Your task to perform on an android device: find which apps use the phone's location Image 0: 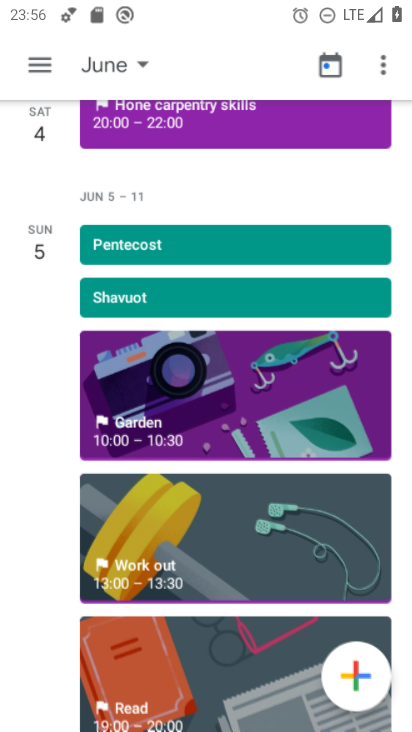
Step 0: press home button
Your task to perform on an android device: find which apps use the phone's location Image 1: 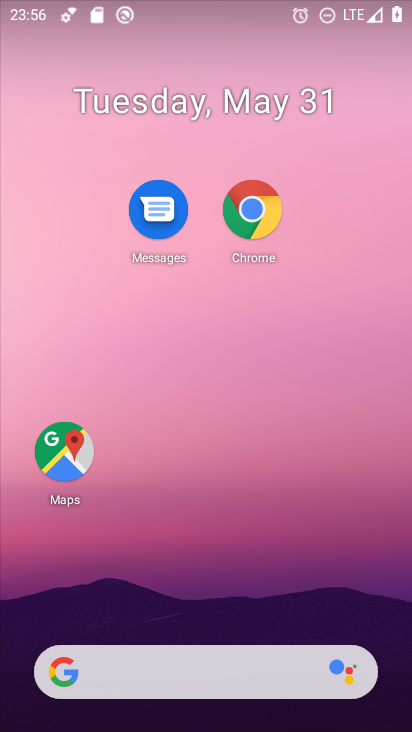
Step 1: drag from (227, 625) to (238, 92)
Your task to perform on an android device: find which apps use the phone's location Image 2: 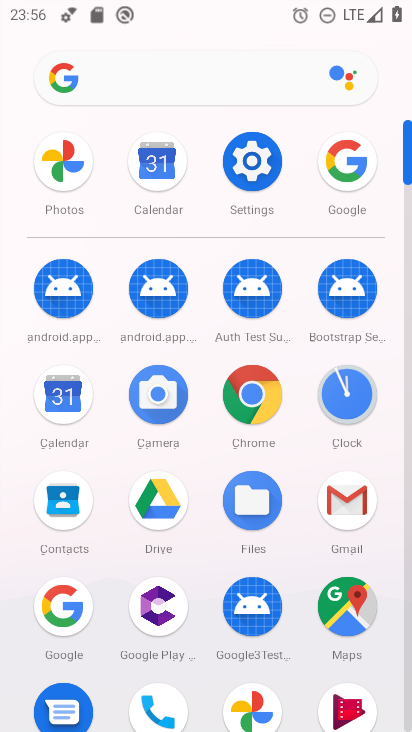
Step 2: click (250, 154)
Your task to perform on an android device: find which apps use the phone's location Image 3: 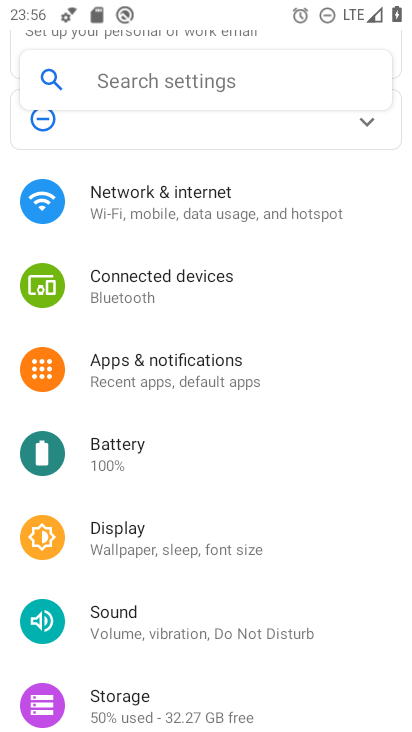
Step 3: drag from (196, 693) to (194, 150)
Your task to perform on an android device: find which apps use the phone's location Image 4: 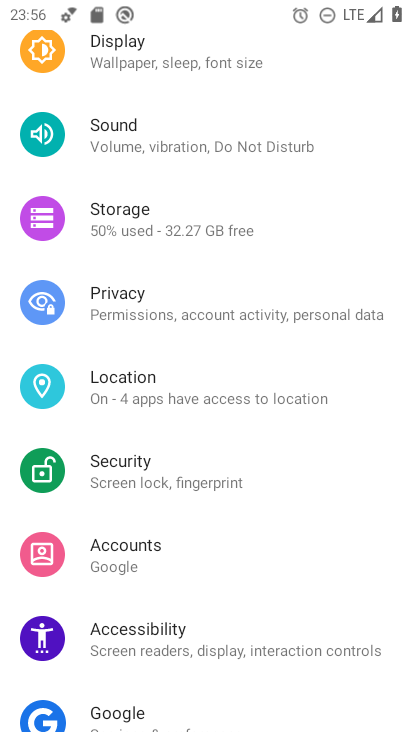
Step 4: click (162, 374)
Your task to perform on an android device: find which apps use the phone's location Image 5: 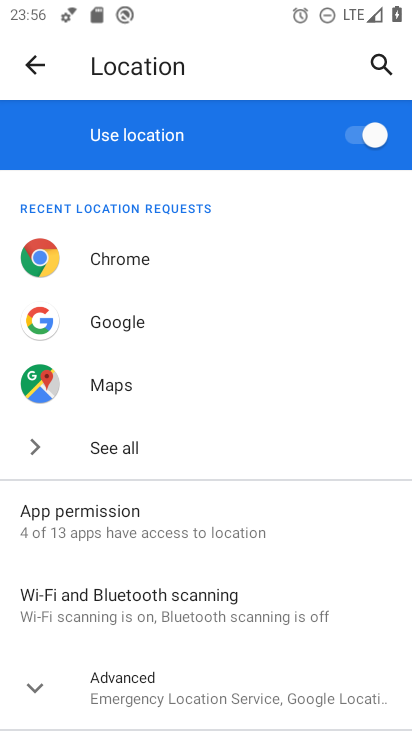
Step 5: click (157, 513)
Your task to perform on an android device: find which apps use the phone's location Image 6: 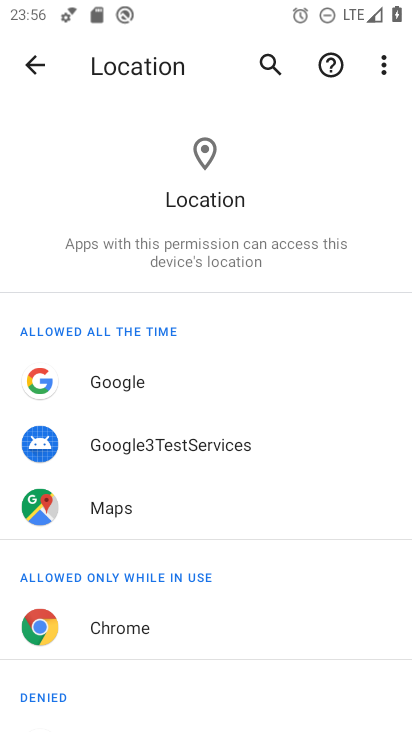
Step 6: task complete